Your task to perform on an android device: Go to Android settings Image 0: 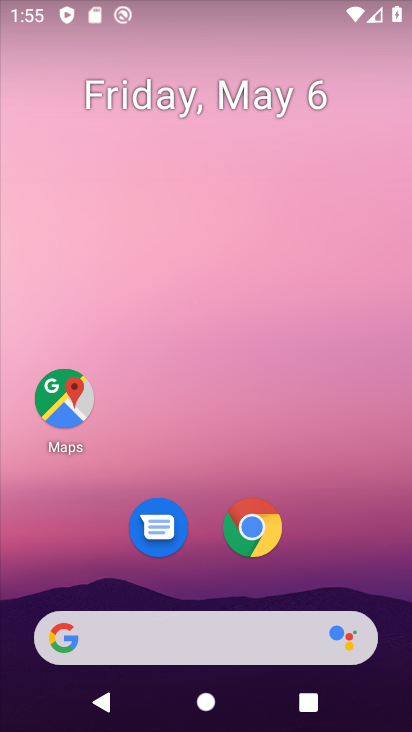
Step 0: drag from (340, 541) to (343, 99)
Your task to perform on an android device: Go to Android settings Image 1: 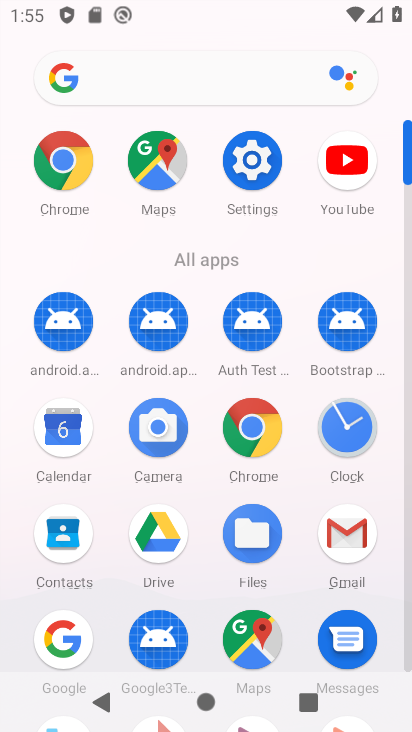
Step 1: click (255, 163)
Your task to perform on an android device: Go to Android settings Image 2: 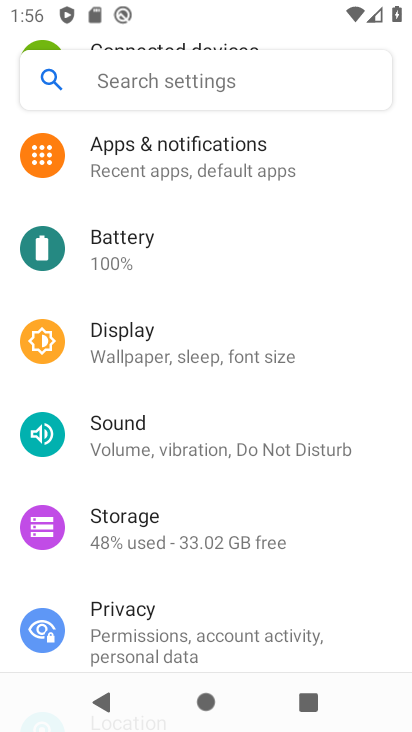
Step 2: drag from (283, 586) to (285, 150)
Your task to perform on an android device: Go to Android settings Image 3: 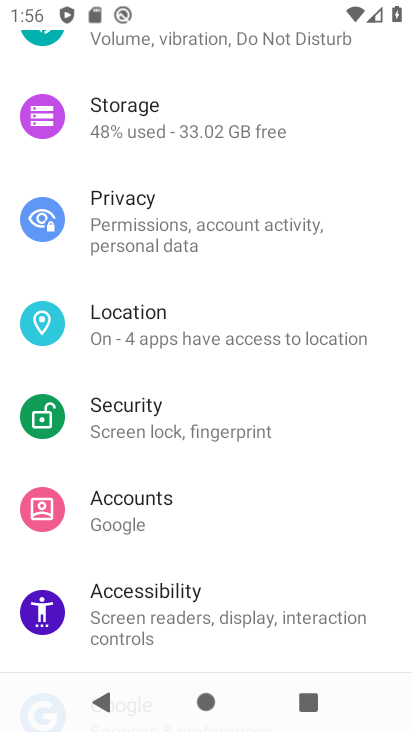
Step 3: drag from (262, 476) to (355, 66)
Your task to perform on an android device: Go to Android settings Image 4: 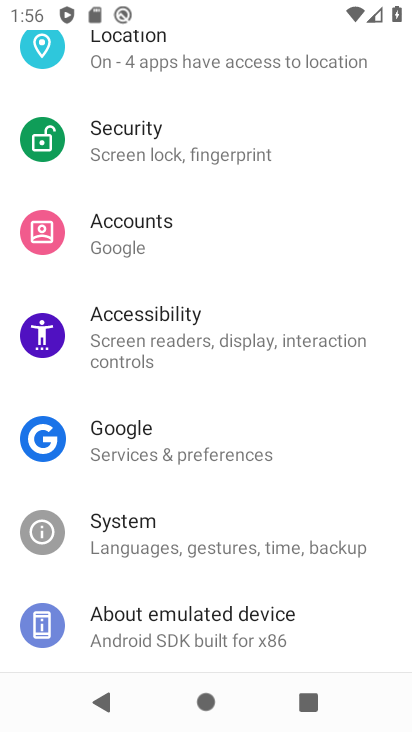
Step 4: drag from (304, 528) to (308, 97)
Your task to perform on an android device: Go to Android settings Image 5: 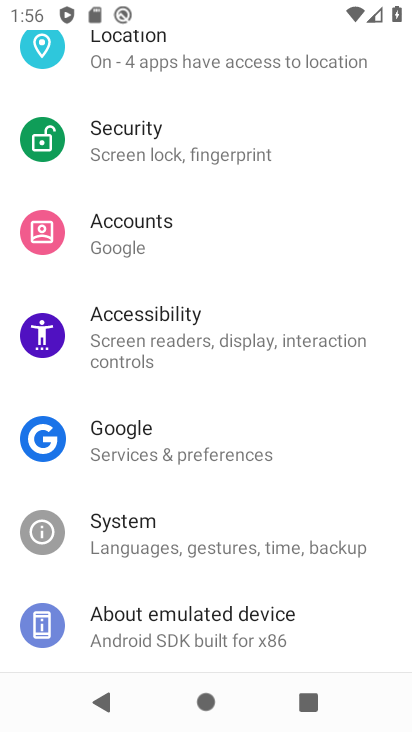
Step 5: click (215, 626)
Your task to perform on an android device: Go to Android settings Image 6: 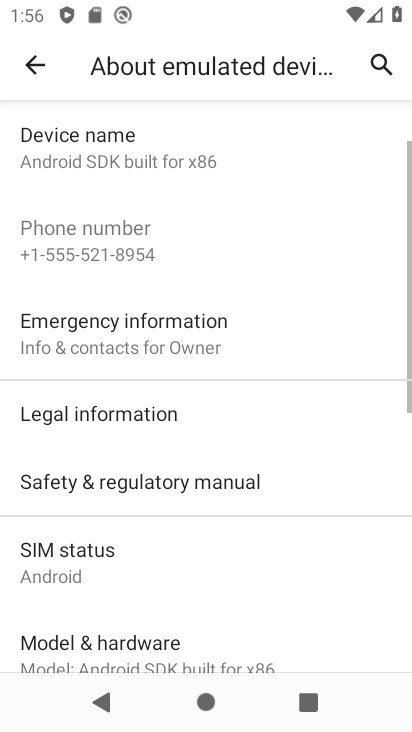
Step 6: drag from (219, 574) to (275, 216)
Your task to perform on an android device: Go to Android settings Image 7: 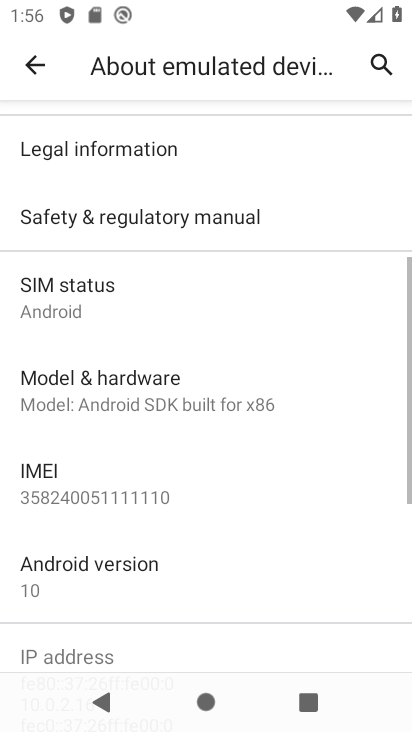
Step 7: click (108, 561)
Your task to perform on an android device: Go to Android settings Image 8: 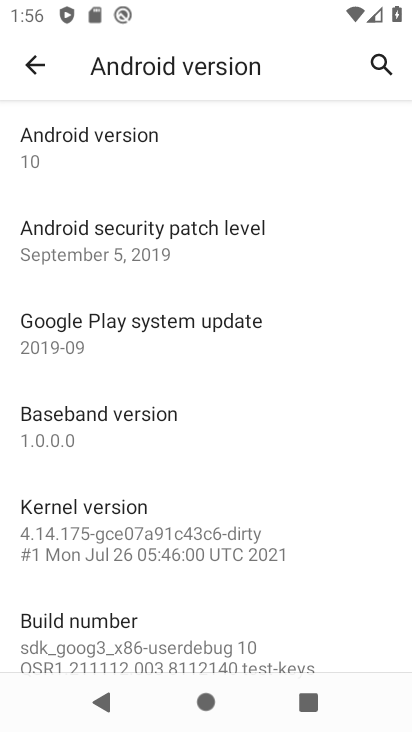
Step 8: task complete